Your task to perform on an android device: open chrome and create a bookmark for the current page Image 0: 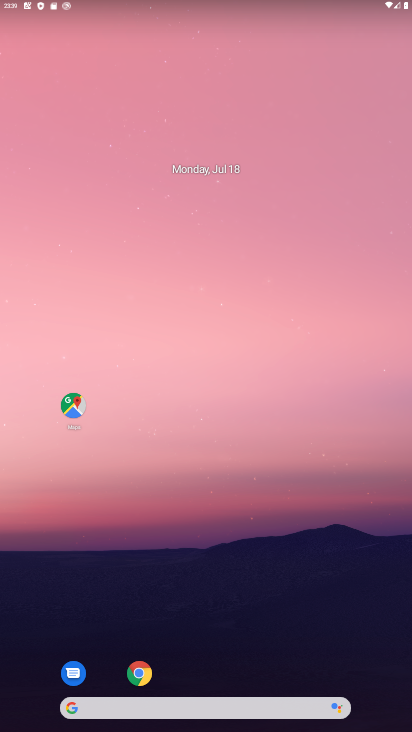
Step 0: drag from (316, 647) to (304, 271)
Your task to perform on an android device: open chrome and create a bookmark for the current page Image 1: 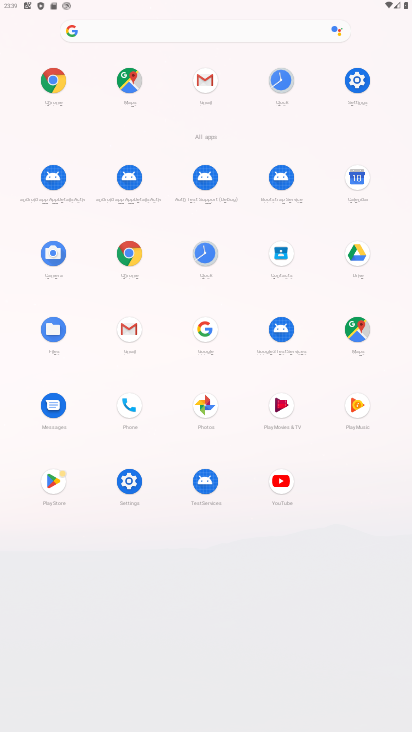
Step 1: click (63, 86)
Your task to perform on an android device: open chrome and create a bookmark for the current page Image 2: 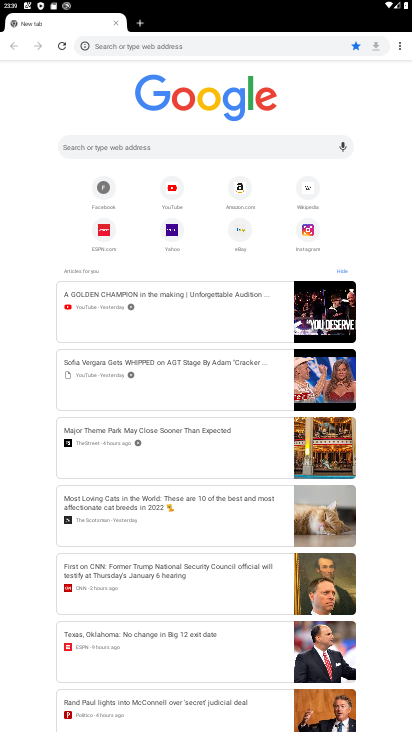
Step 2: task complete